Your task to perform on an android device: open the mobile data screen to see how much data has been used Image 0: 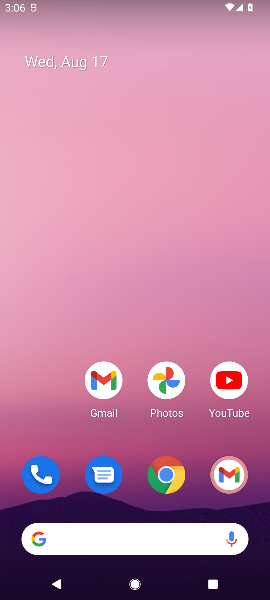
Step 0: drag from (134, 517) to (113, 20)
Your task to perform on an android device: open the mobile data screen to see how much data has been used Image 1: 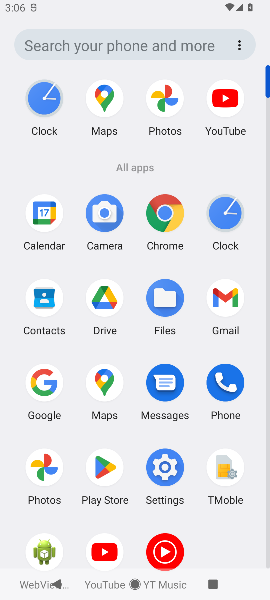
Step 1: click (164, 469)
Your task to perform on an android device: open the mobile data screen to see how much data has been used Image 2: 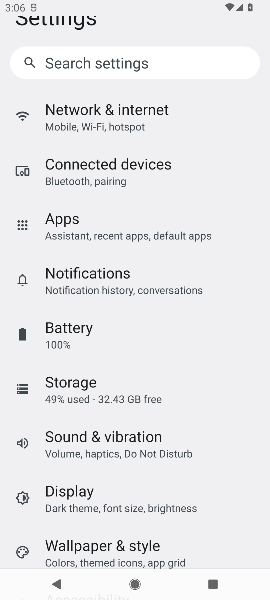
Step 2: click (89, 110)
Your task to perform on an android device: open the mobile data screen to see how much data has been used Image 3: 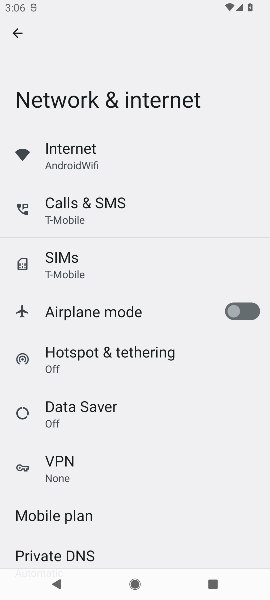
Step 3: click (71, 155)
Your task to perform on an android device: open the mobile data screen to see how much data has been used Image 4: 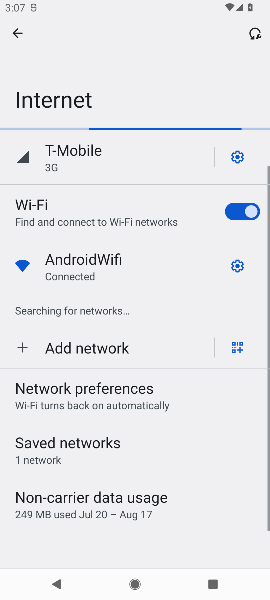
Step 4: task complete